Your task to perform on an android device: Do I have any events tomorrow? Image 0: 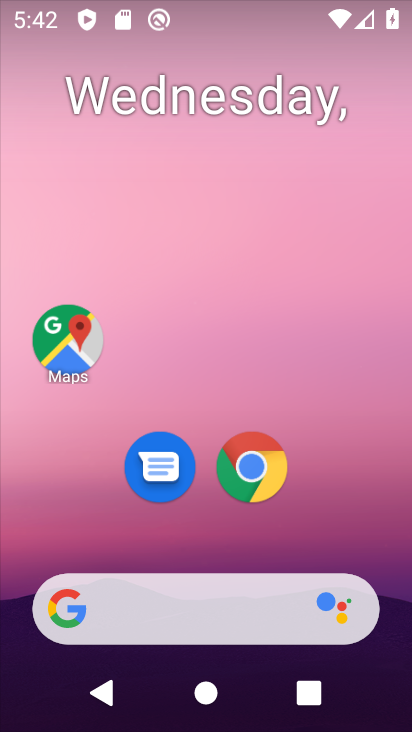
Step 0: drag from (288, 523) to (345, 143)
Your task to perform on an android device: Do I have any events tomorrow? Image 1: 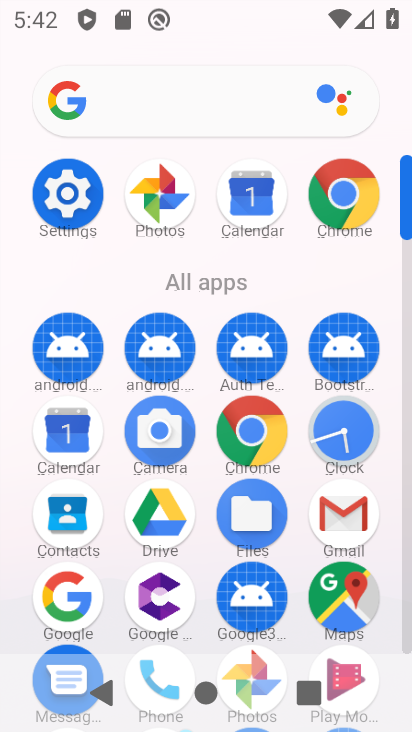
Step 1: click (55, 412)
Your task to perform on an android device: Do I have any events tomorrow? Image 2: 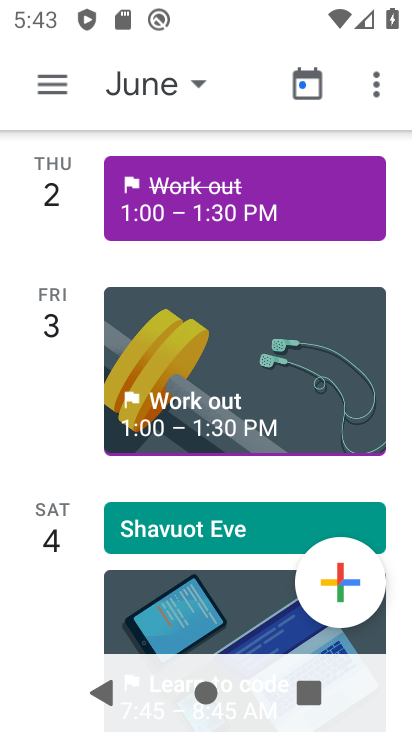
Step 2: click (188, 83)
Your task to perform on an android device: Do I have any events tomorrow? Image 3: 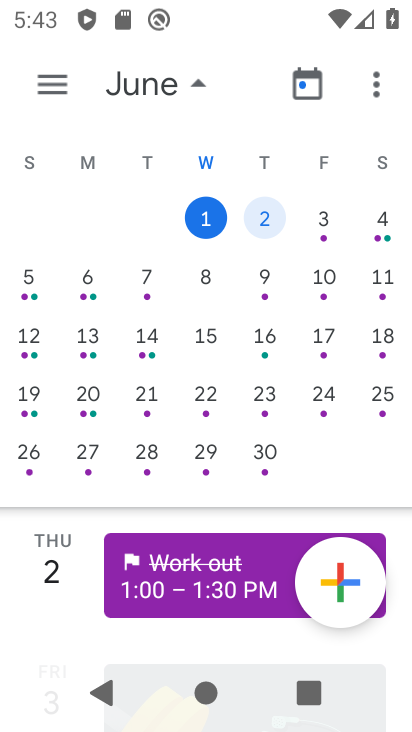
Step 3: click (258, 210)
Your task to perform on an android device: Do I have any events tomorrow? Image 4: 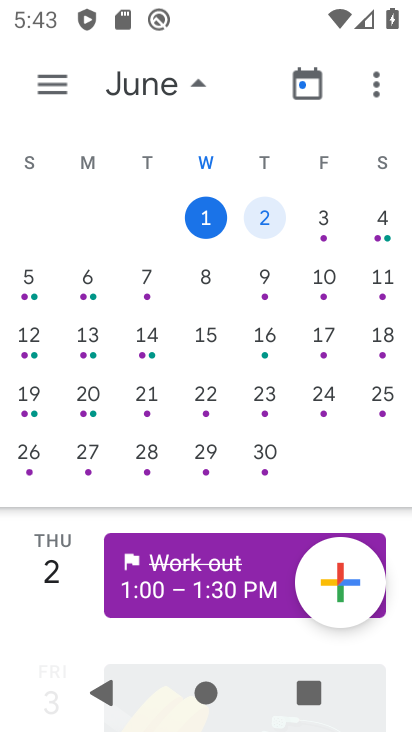
Step 4: click (276, 208)
Your task to perform on an android device: Do I have any events tomorrow? Image 5: 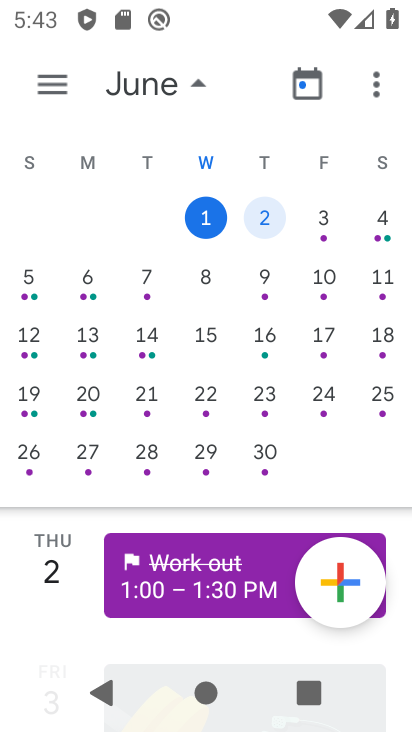
Step 5: task complete